Your task to perform on an android device: Open Wikipedia Image 0: 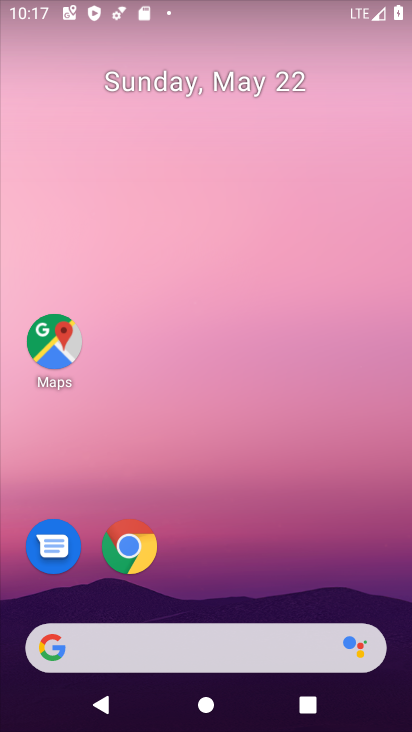
Step 0: drag from (238, 567) to (309, 16)
Your task to perform on an android device: Open Wikipedia Image 1: 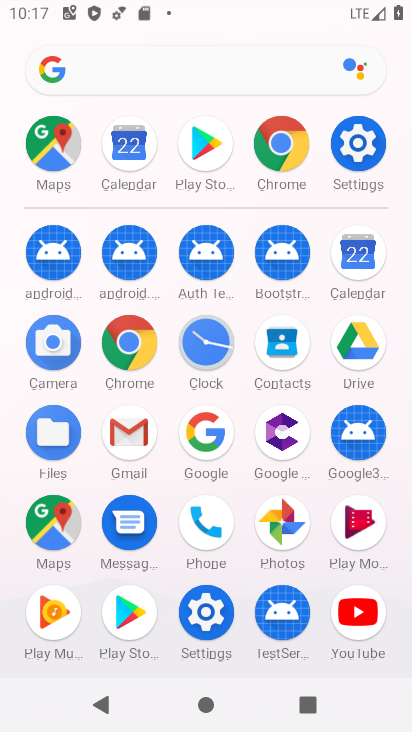
Step 1: click (145, 60)
Your task to perform on an android device: Open Wikipedia Image 2: 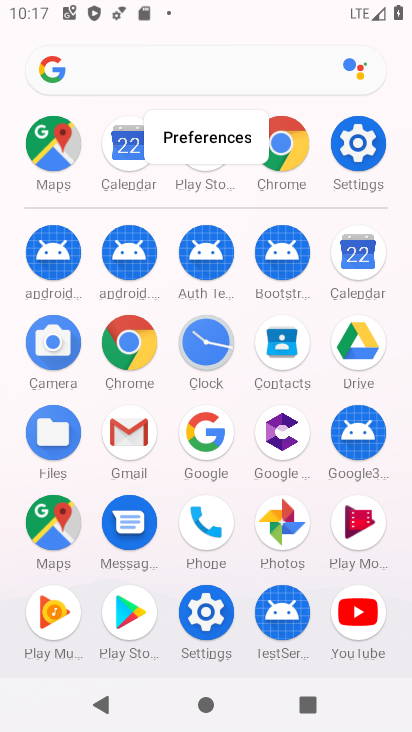
Step 2: click (158, 70)
Your task to perform on an android device: Open Wikipedia Image 3: 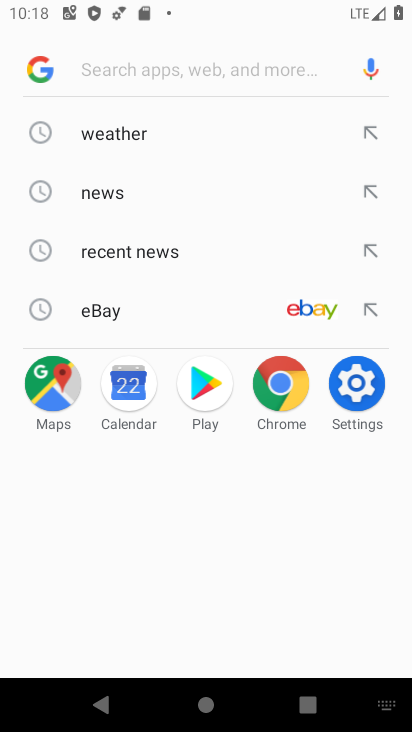
Step 3: type "wikipedia"
Your task to perform on an android device: Open Wikipedia Image 4: 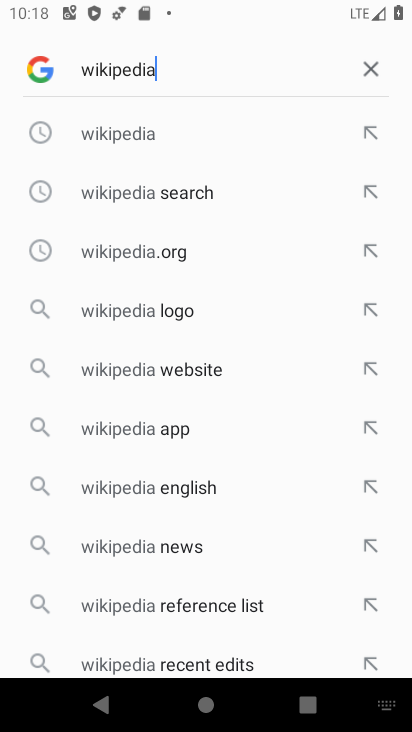
Step 4: click (148, 129)
Your task to perform on an android device: Open Wikipedia Image 5: 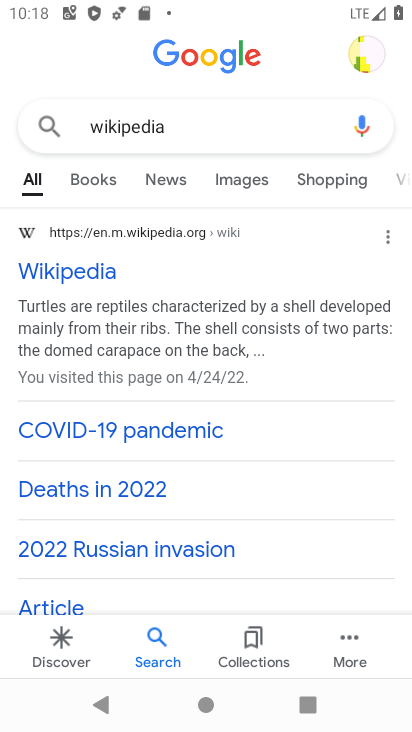
Step 5: drag from (220, 492) to (299, 605)
Your task to perform on an android device: Open Wikipedia Image 6: 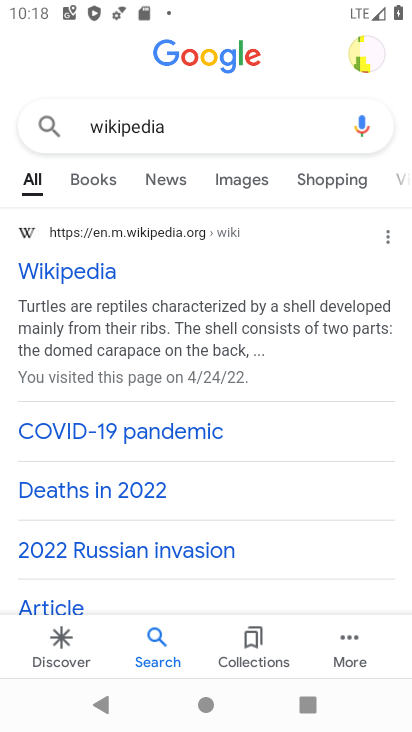
Step 6: click (77, 276)
Your task to perform on an android device: Open Wikipedia Image 7: 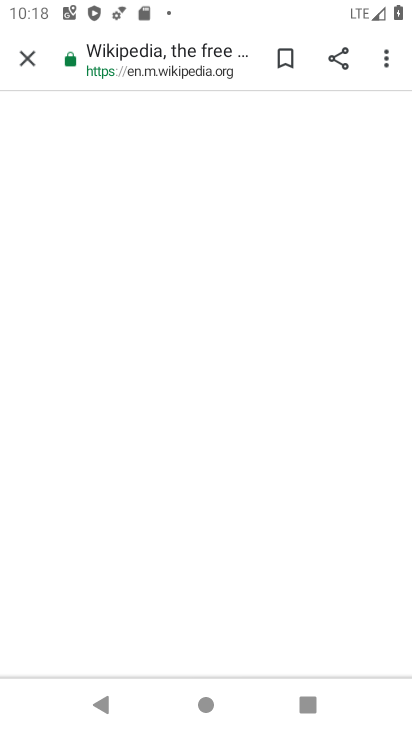
Step 7: task complete